Your task to perform on an android device: Find coffee shops on Maps Image 0: 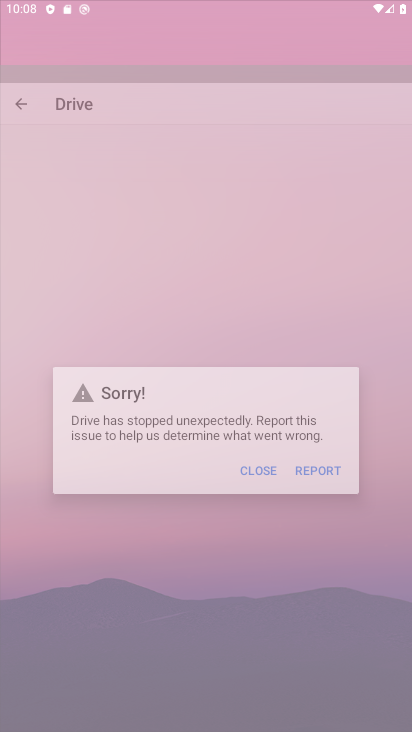
Step 0: click (124, 642)
Your task to perform on an android device: Find coffee shops on Maps Image 1: 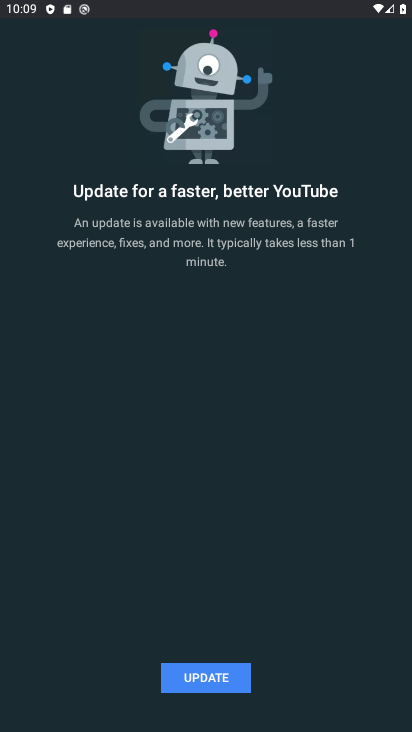
Step 1: press back button
Your task to perform on an android device: Find coffee shops on Maps Image 2: 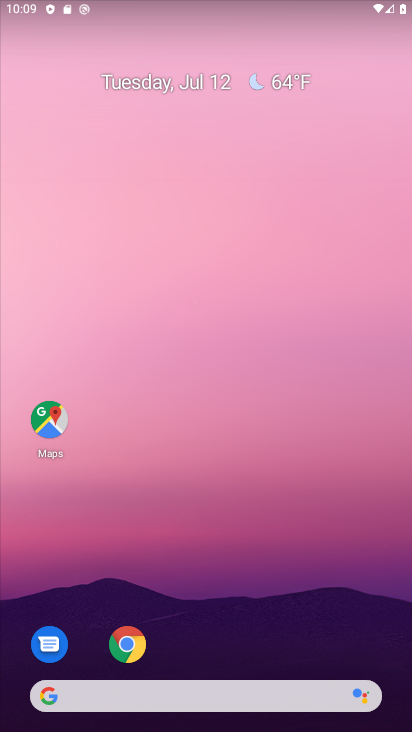
Step 2: click (58, 429)
Your task to perform on an android device: Find coffee shops on Maps Image 3: 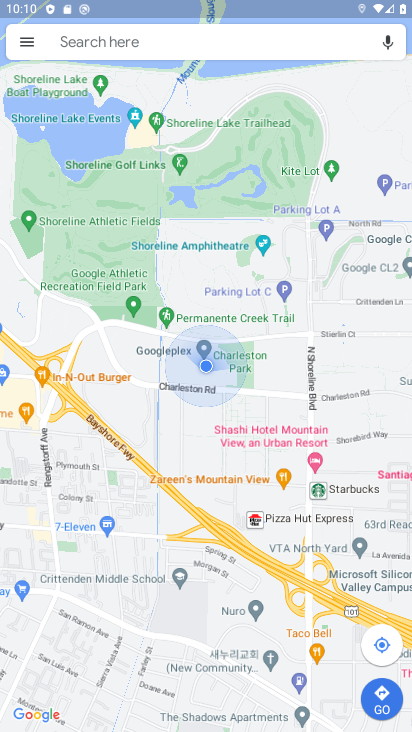
Step 3: click (142, 31)
Your task to perform on an android device: Find coffee shops on Maps Image 4: 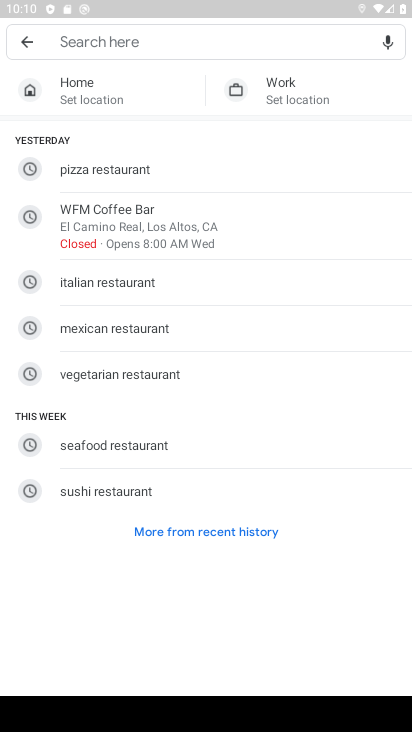
Step 4: type "coffee"
Your task to perform on an android device: Find coffee shops on Maps Image 5: 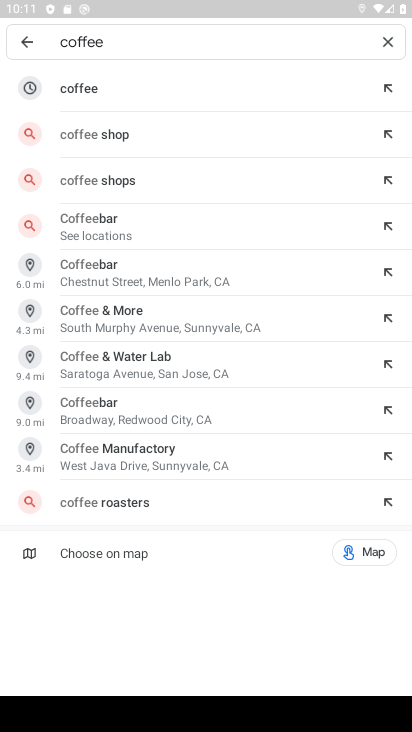
Step 5: click (202, 103)
Your task to perform on an android device: Find coffee shops on Maps Image 6: 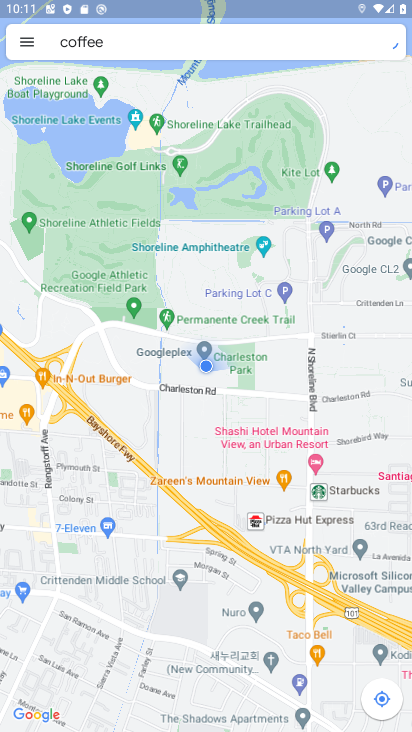
Step 6: task complete